Your task to perform on an android device: turn notification dots off Image 0: 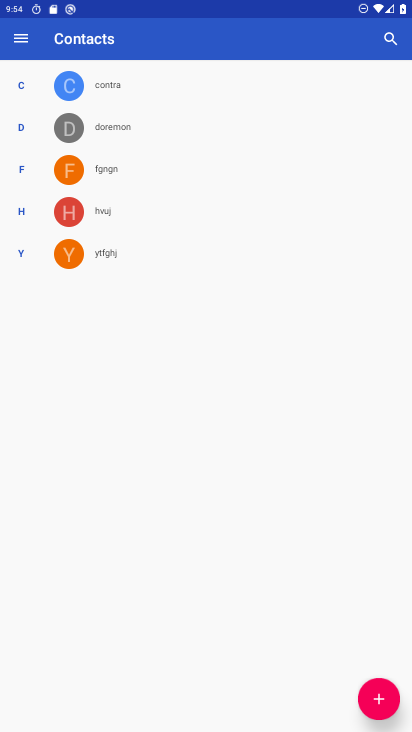
Step 0: press home button
Your task to perform on an android device: turn notification dots off Image 1: 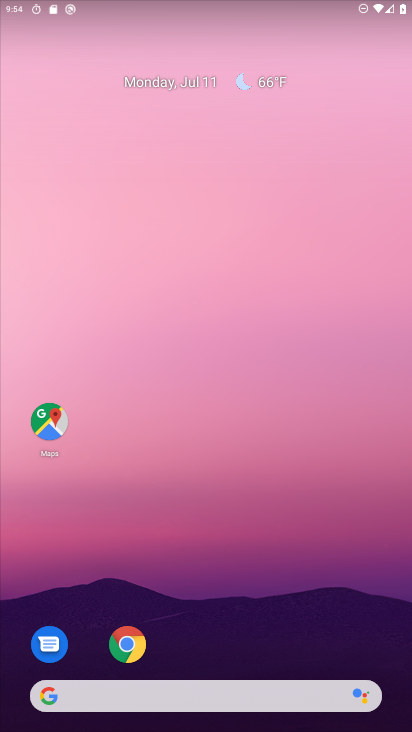
Step 1: drag from (287, 579) to (193, 60)
Your task to perform on an android device: turn notification dots off Image 2: 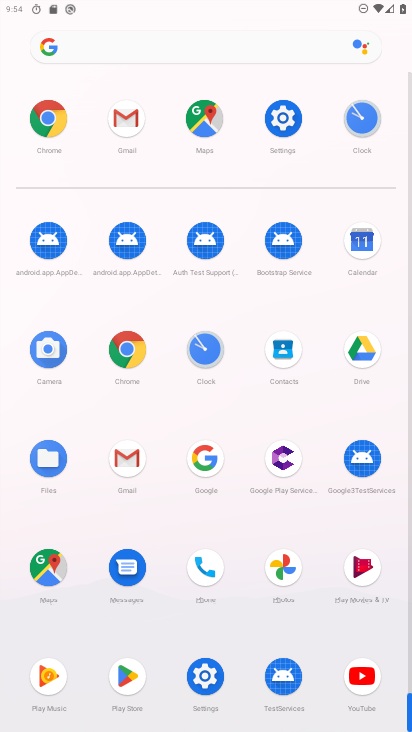
Step 2: click (279, 110)
Your task to perform on an android device: turn notification dots off Image 3: 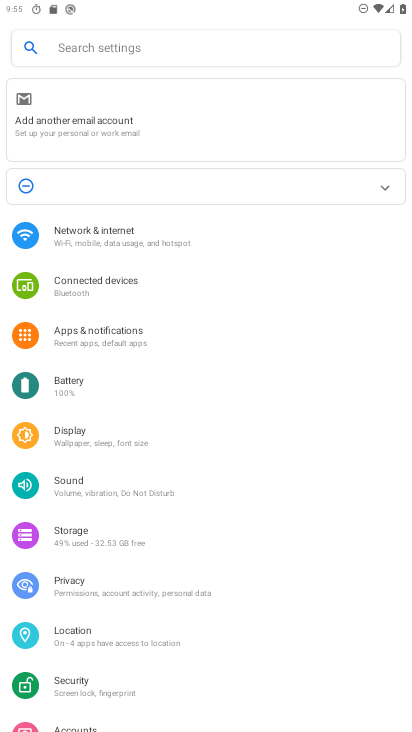
Step 3: click (135, 331)
Your task to perform on an android device: turn notification dots off Image 4: 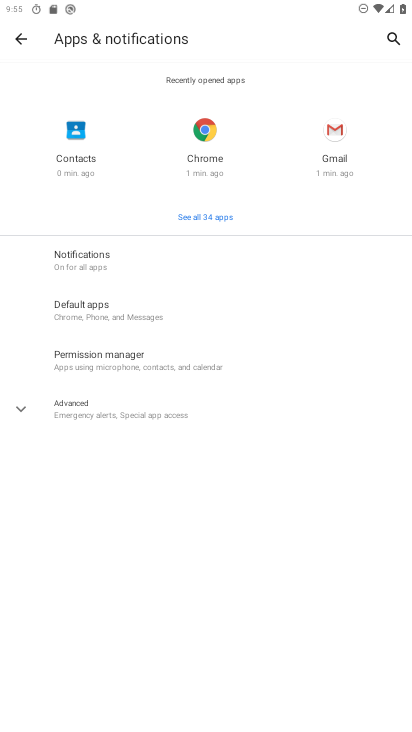
Step 4: click (105, 261)
Your task to perform on an android device: turn notification dots off Image 5: 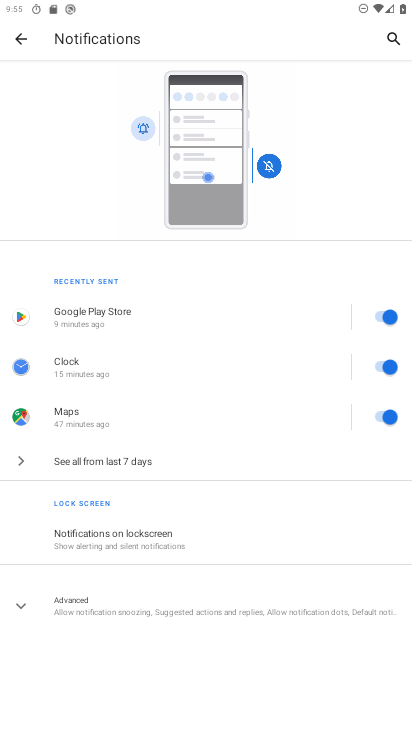
Step 5: click (136, 614)
Your task to perform on an android device: turn notification dots off Image 6: 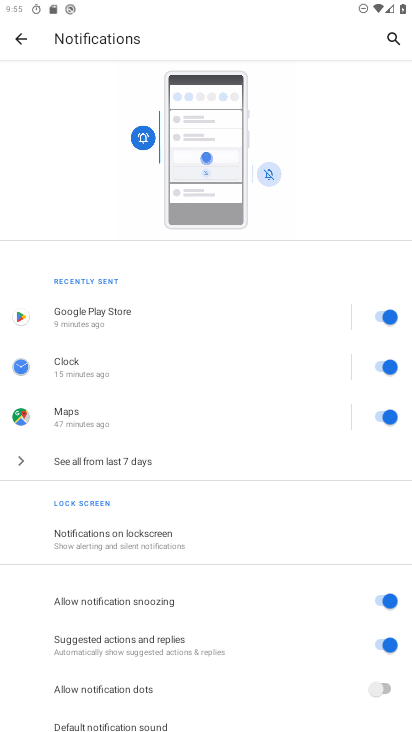
Step 6: task complete